Your task to perform on an android device: clear history in the chrome app Image 0: 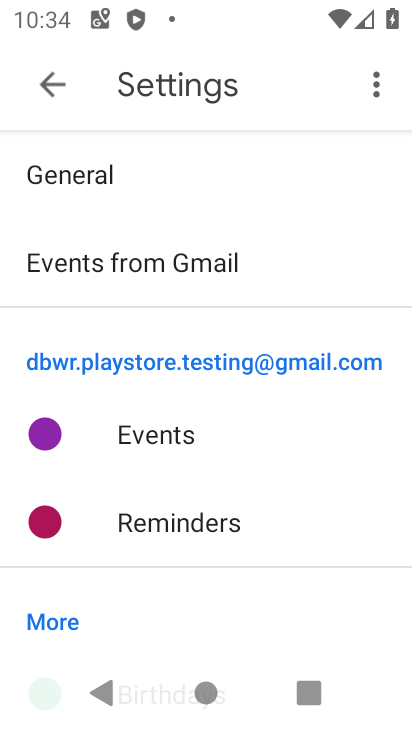
Step 0: press home button
Your task to perform on an android device: clear history in the chrome app Image 1: 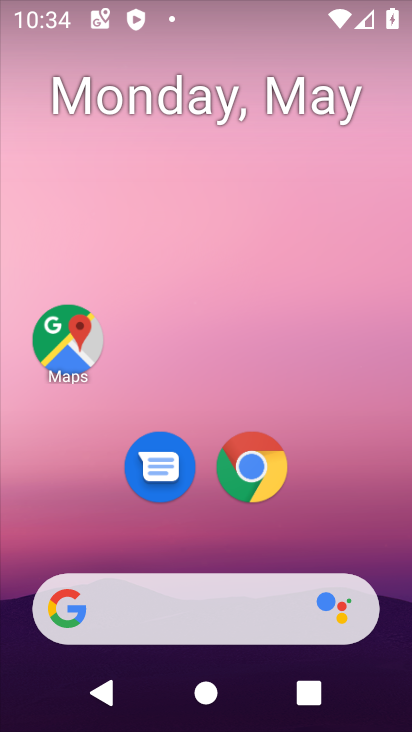
Step 1: click (255, 465)
Your task to perform on an android device: clear history in the chrome app Image 2: 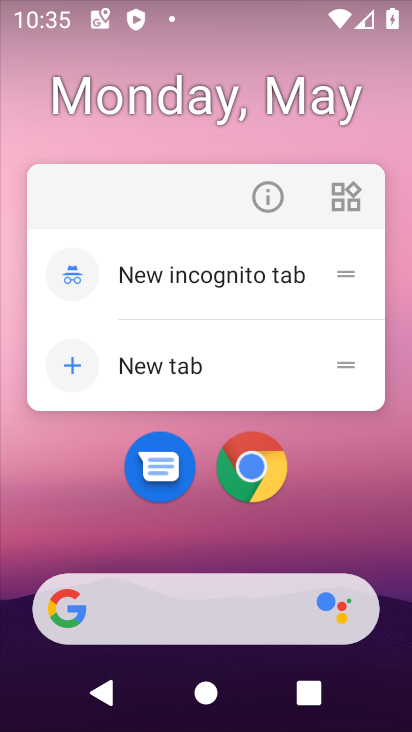
Step 2: click (255, 465)
Your task to perform on an android device: clear history in the chrome app Image 3: 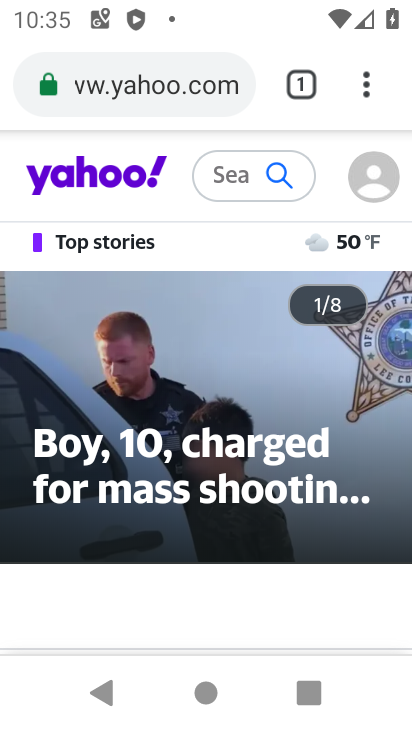
Step 3: click (364, 77)
Your task to perform on an android device: clear history in the chrome app Image 4: 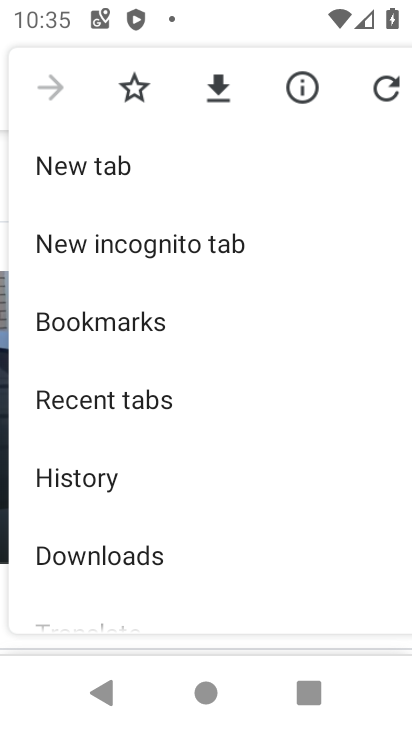
Step 4: drag from (261, 585) to (260, 224)
Your task to perform on an android device: clear history in the chrome app Image 5: 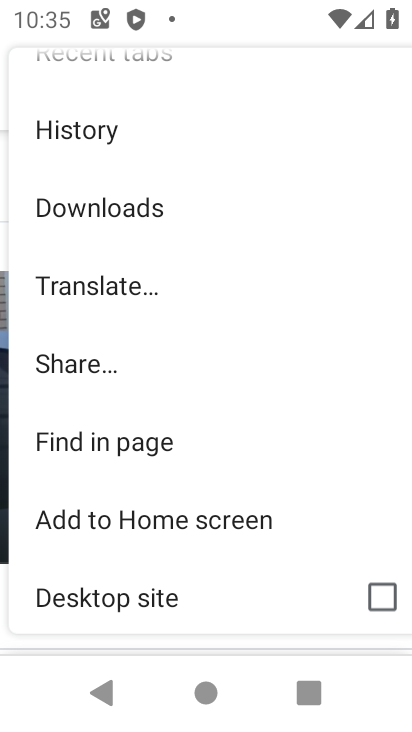
Step 5: drag from (260, 590) to (281, 316)
Your task to perform on an android device: clear history in the chrome app Image 6: 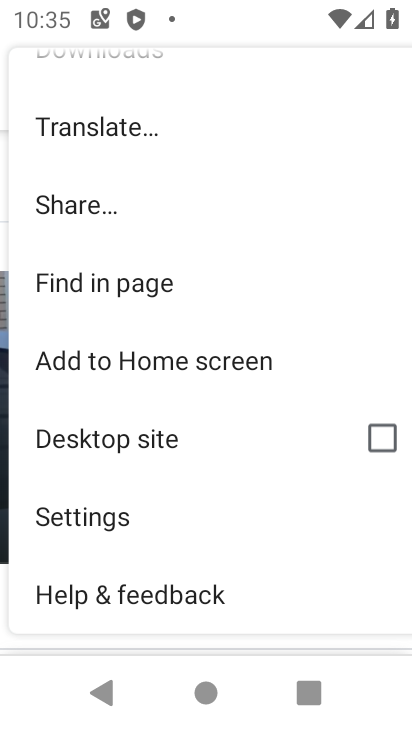
Step 6: drag from (253, 561) to (265, 236)
Your task to perform on an android device: clear history in the chrome app Image 7: 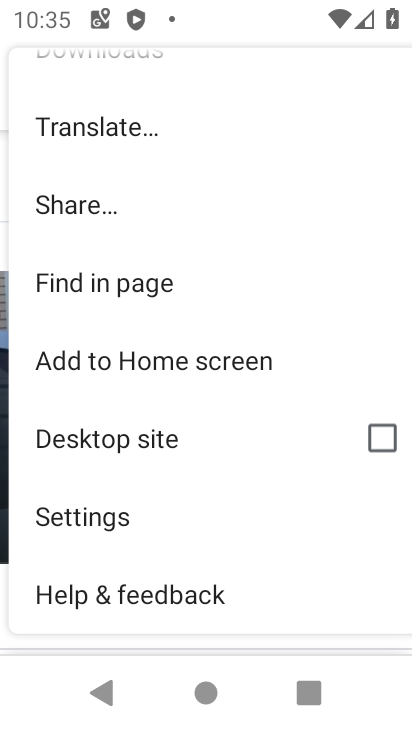
Step 7: click (254, 618)
Your task to perform on an android device: clear history in the chrome app Image 8: 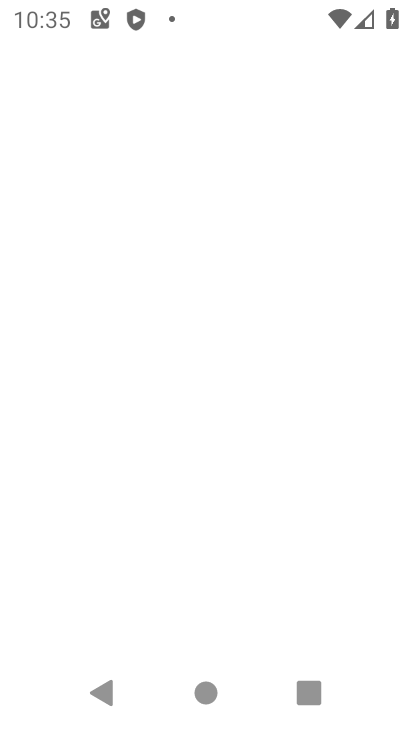
Step 8: click (367, 83)
Your task to perform on an android device: clear history in the chrome app Image 9: 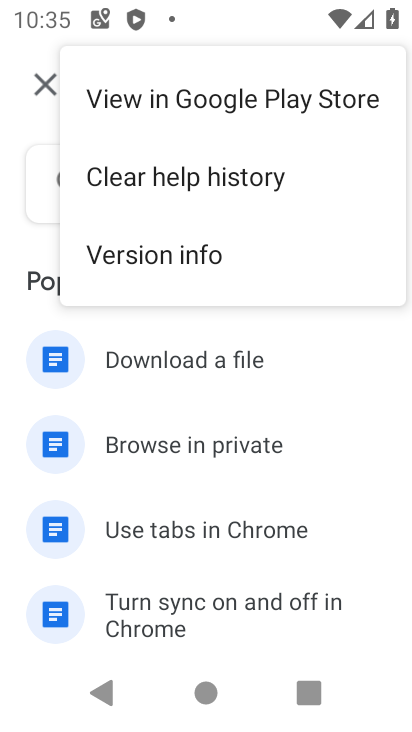
Step 9: click (46, 81)
Your task to perform on an android device: clear history in the chrome app Image 10: 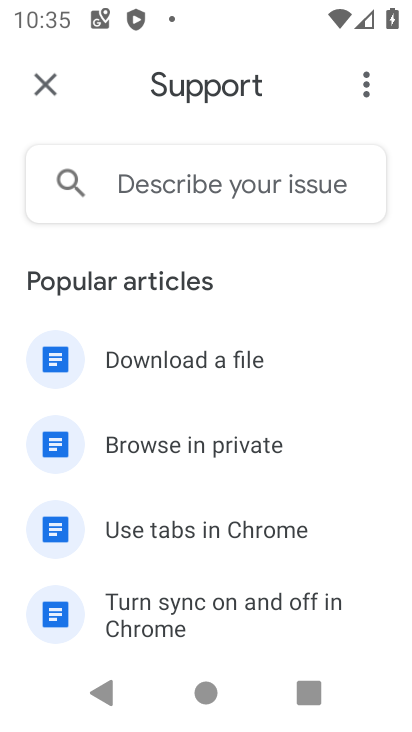
Step 10: click (46, 81)
Your task to perform on an android device: clear history in the chrome app Image 11: 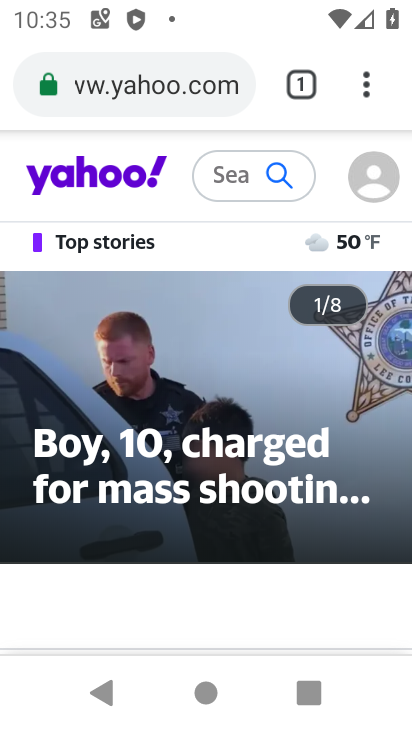
Step 11: click (366, 83)
Your task to perform on an android device: clear history in the chrome app Image 12: 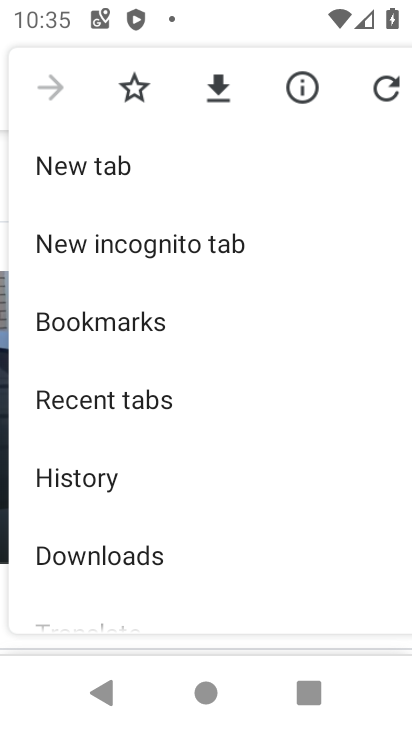
Step 12: click (64, 485)
Your task to perform on an android device: clear history in the chrome app Image 13: 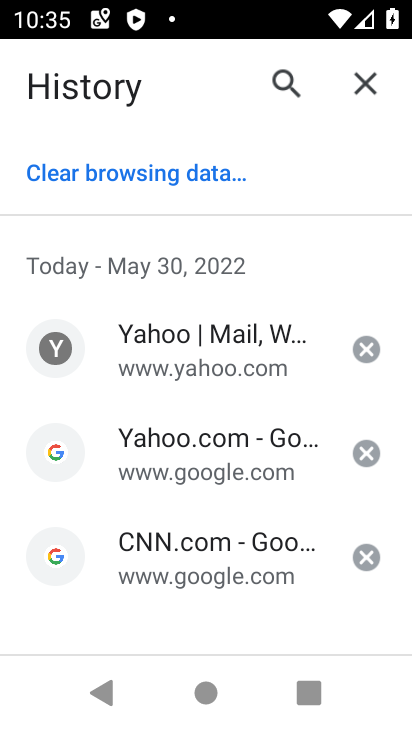
Step 13: click (173, 177)
Your task to perform on an android device: clear history in the chrome app Image 14: 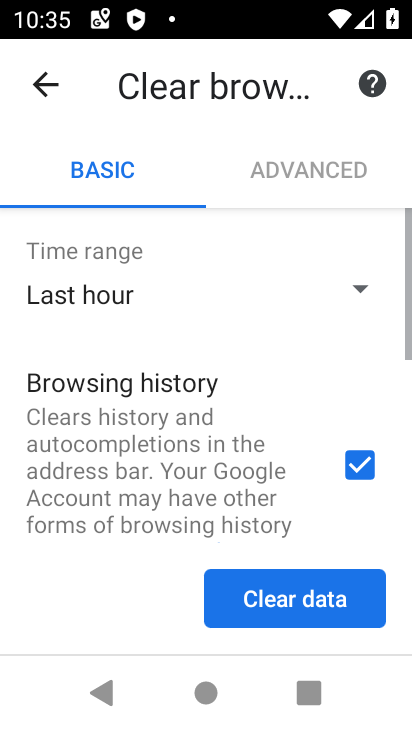
Step 14: click (281, 609)
Your task to perform on an android device: clear history in the chrome app Image 15: 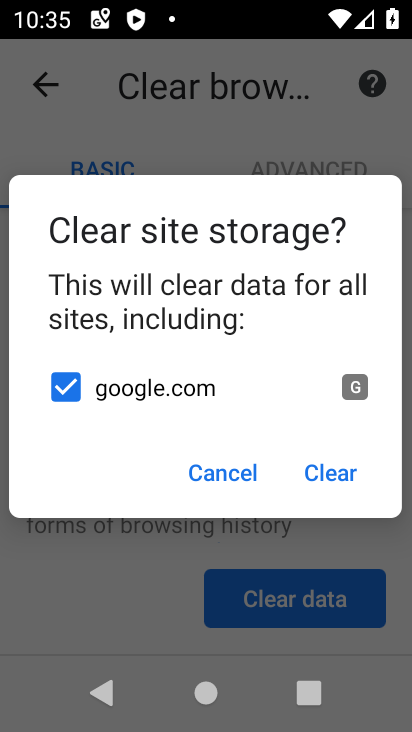
Step 15: click (310, 472)
Your task to perform on an android device: clear history in the chrome app Image 16: 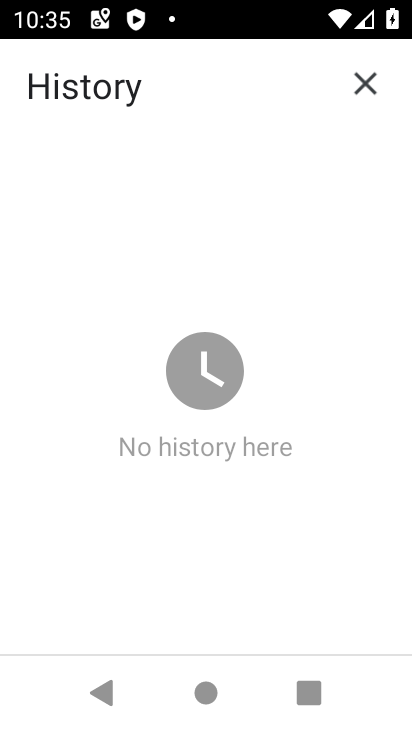
Step 16: task complete